Your task to perform on an android device: open app "McDonald's" (install if not already installed), go to login, and select forgot password Image 0: 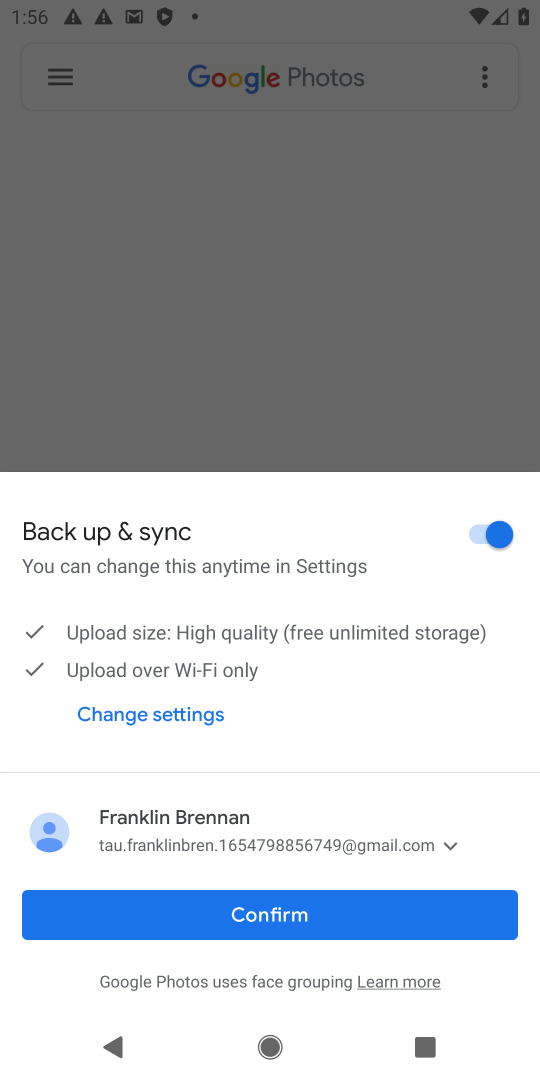
Step 0: press home button
Your task to perform on an android device: open app "McDonald's" (install if not already installed), go to login, and select forgot password Image 1: 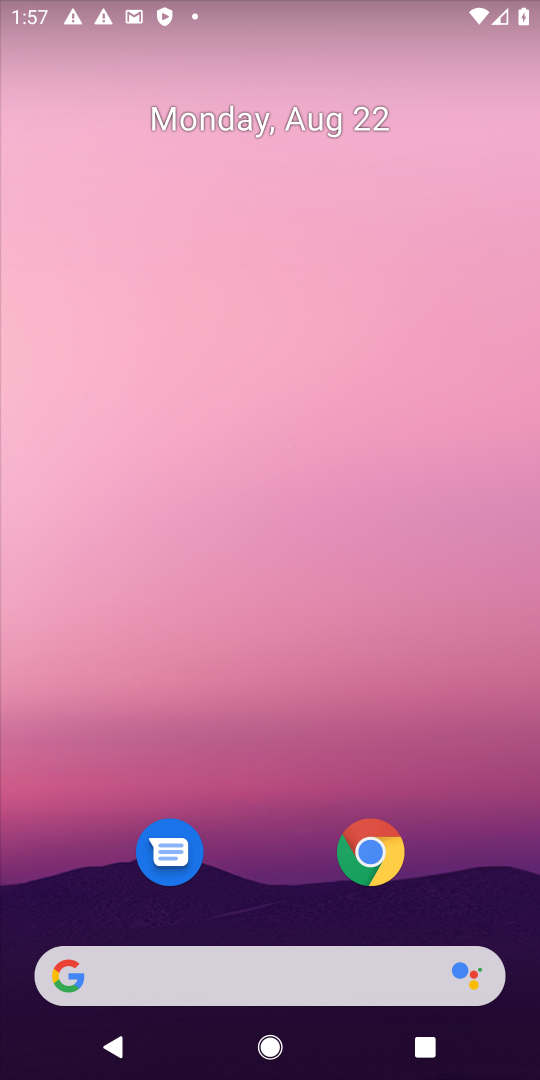
Step 1: drag from (293, 959) to (378, 30)
Your task to perform on an android device: open app "McDonald's" (install if not already installed), go to login, and select forgot password Image 2: 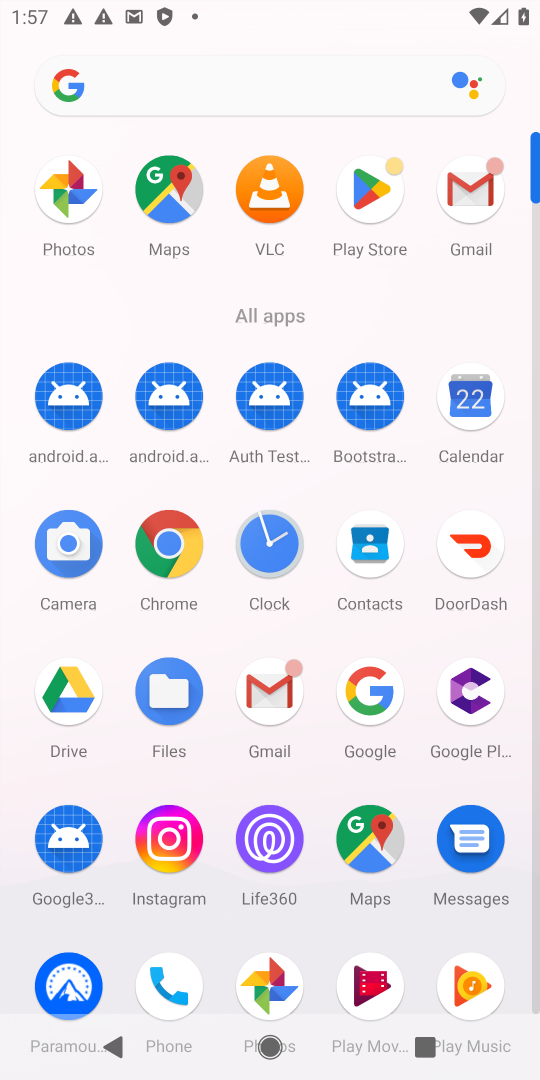
Step 2: click (391, 182)
Your task to perform on an android device: open app "McDonald's" (install if not already installed), go to login, and select forgot password Image 3: 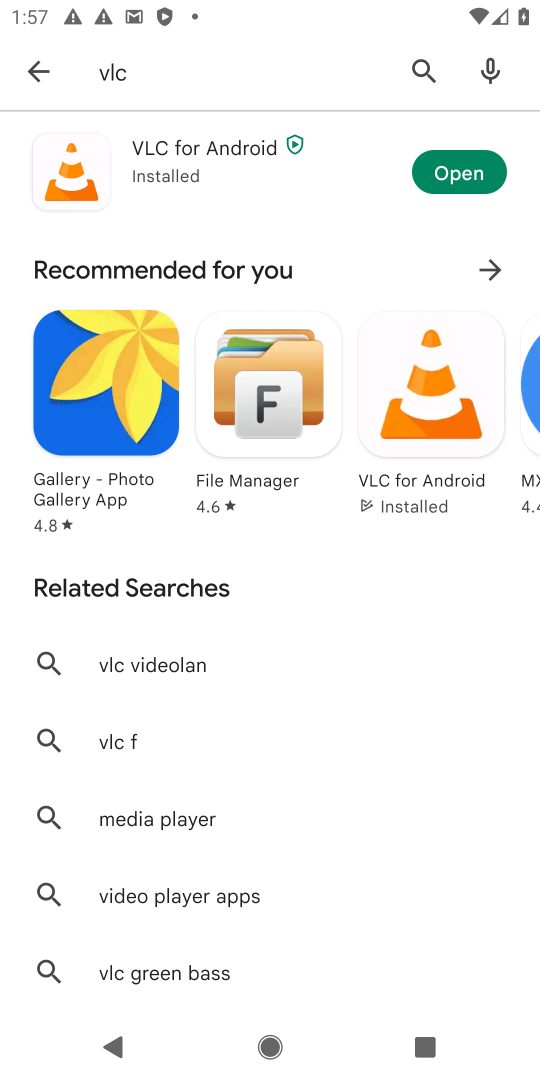
Step 3: click (438, 71)
Your task to perform on an android device: open app "McDonald's" (install if not already installed), go to login, and select forgot password Image 4: 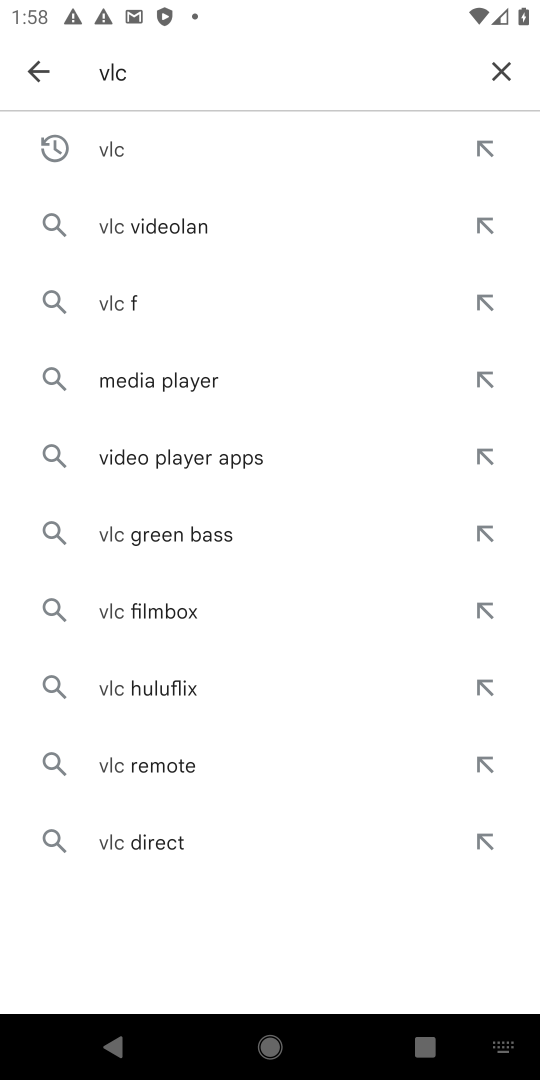
Step 4: click (490, 62)
Your task to perform on an android device: open app "McDonald's" (install if not already installed), go to login, and select forgot password Image 5: 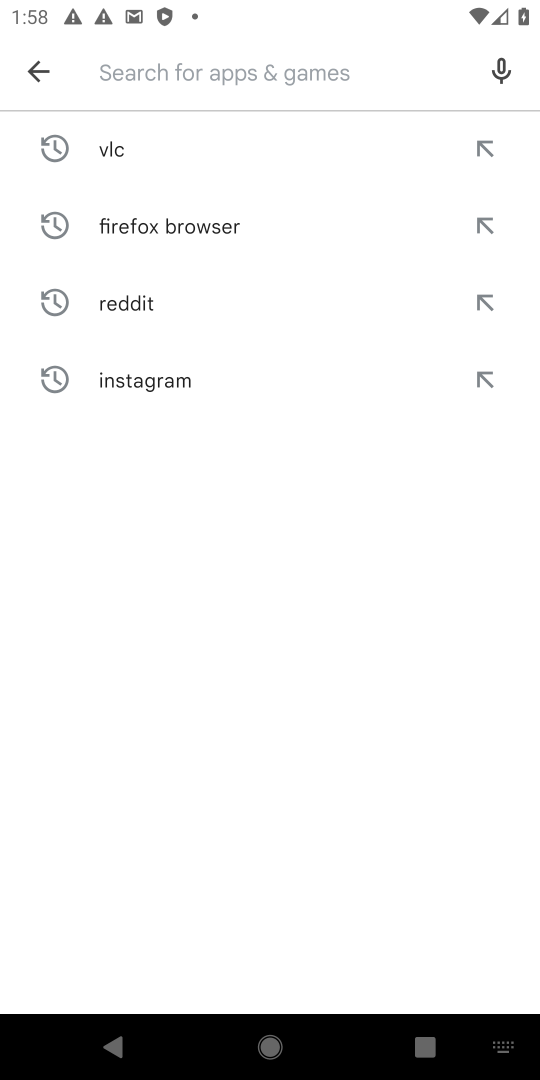
Step 5: type "mcdonalds"
Your task to perform on an android device: open app "McDonald's" (install if not already installed), go to login, and select forgot password Image 6: 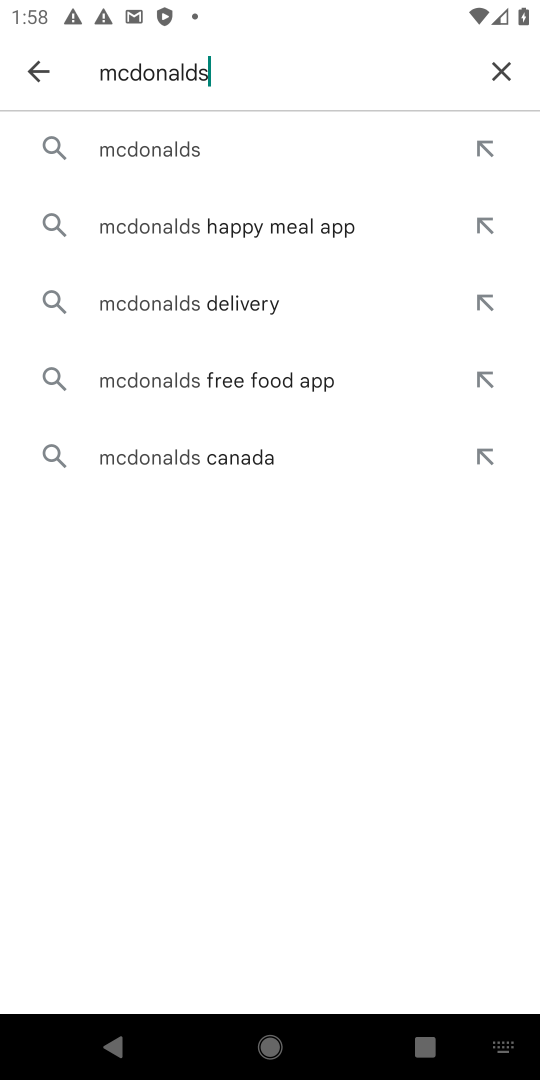
Step 6: click (201, 172)
Your task to perform on an android device: open app "McDonald's" (install if not already installed), go to login, and select forgot password Image 7: 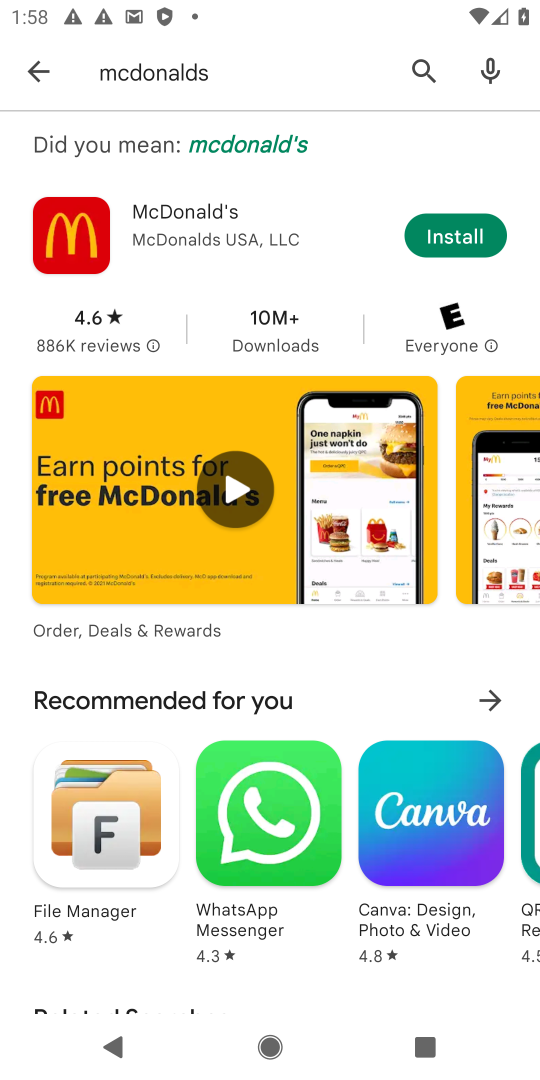
Step 7: click (447, 226)
Your task to perform on an android device: open app "McDonald's" (install if not already installed), go to login, and select forgot password Image 8: 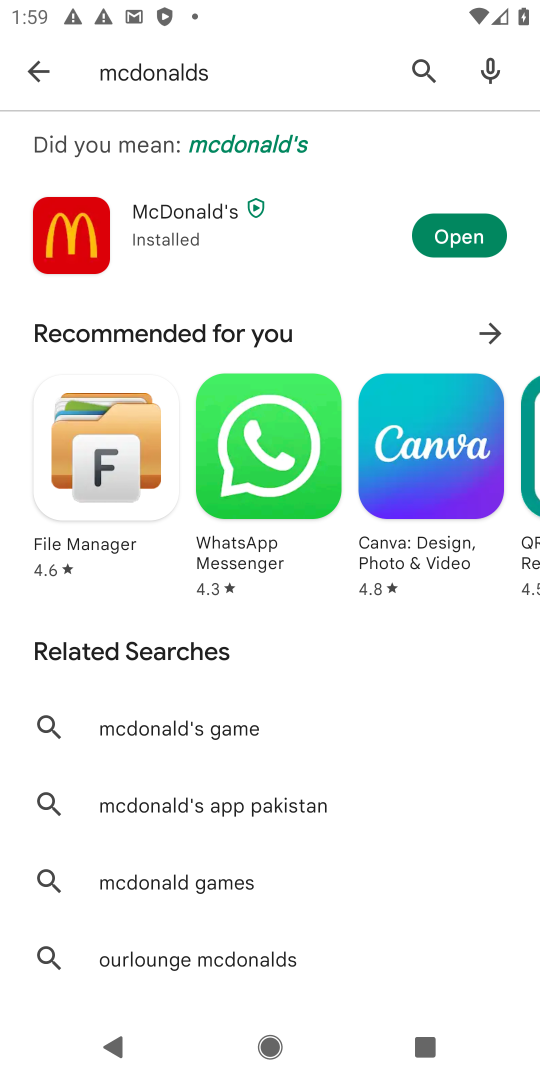
Step 8: click (450, 245)
Your task to perform on an android device: open app "McDonald's" (install if not already installed), go to login, and select forgot password Image 9: 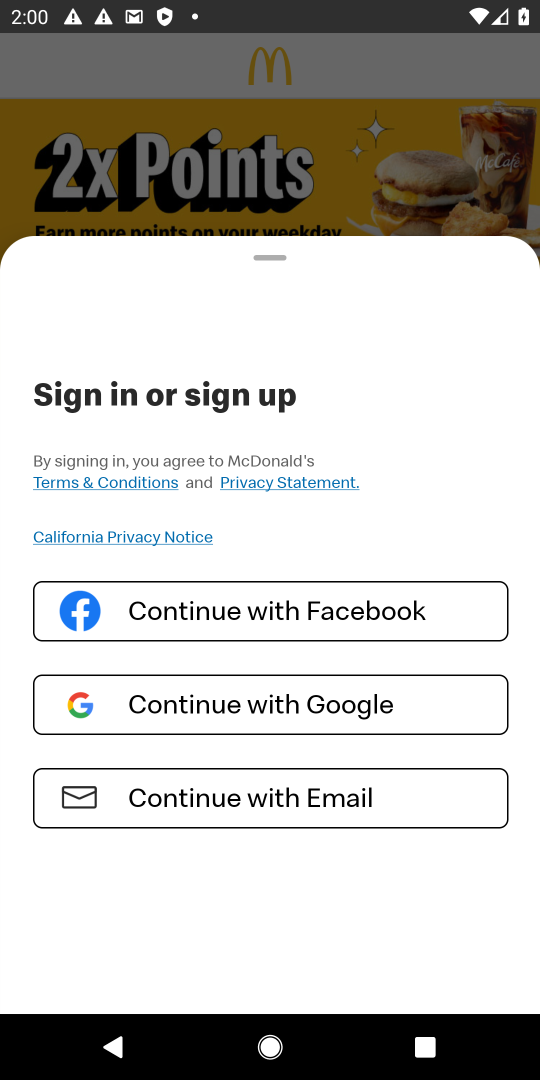
Step 9: click (282, 802)
Your task to perform on an android device: open app "McDonald's" (install if not already installed), go to login, and select forgot password Image 10: 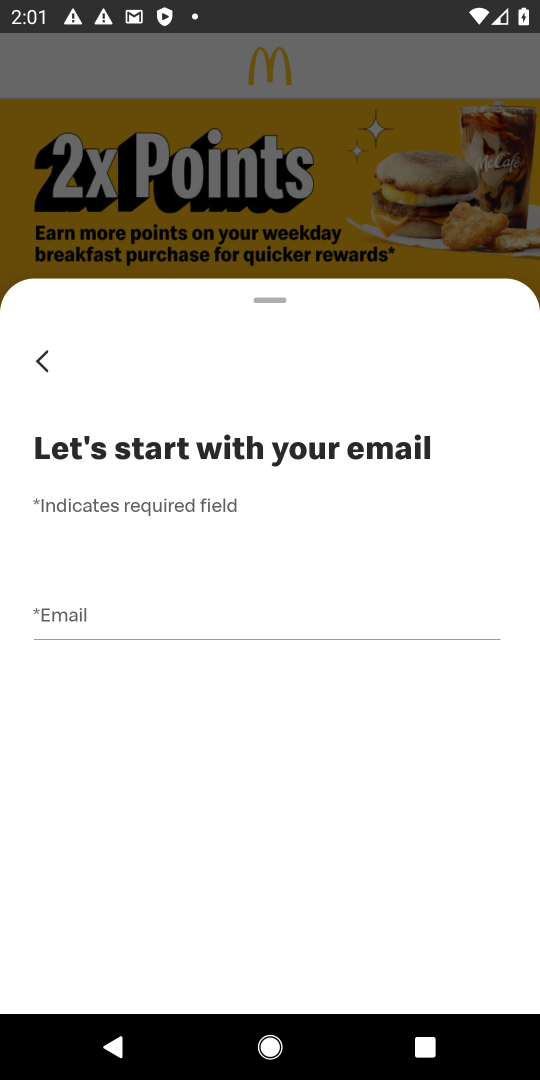
Step 10: task complete